Your task to perform on an android device: Go to Maps Image 0: 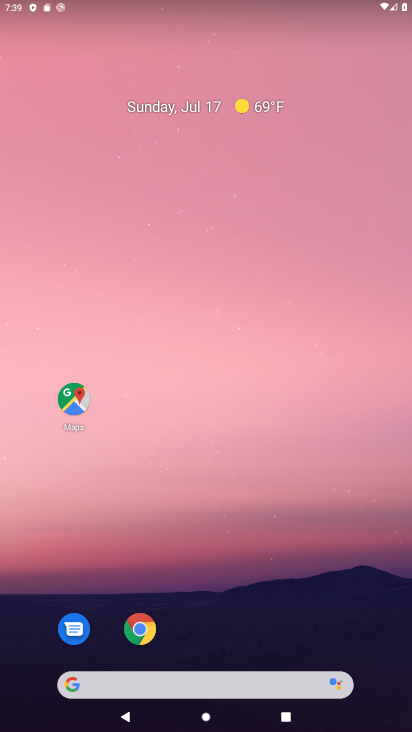
Step 0: drag from (221, 640) to (208, 200)
Your task to perform on an android device: Go to Maps Image 1: 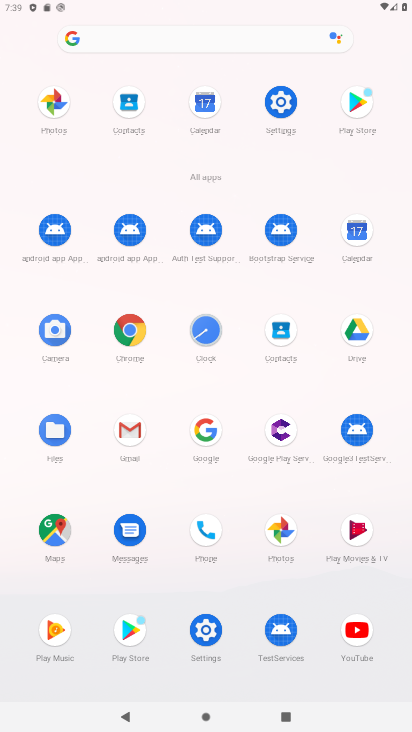
Step 1: click (57, 531)
Your task to perform on an android device: Go to Maps Image 2: 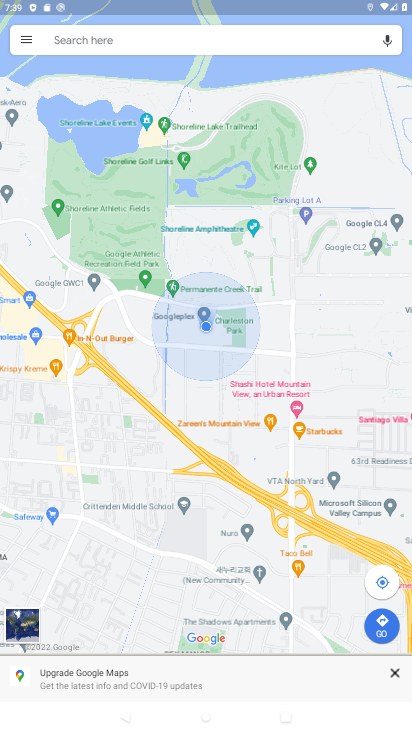
Step 2: task complete